Your task to perform on an android device: make emails show in primary in the gmail app Image 0: 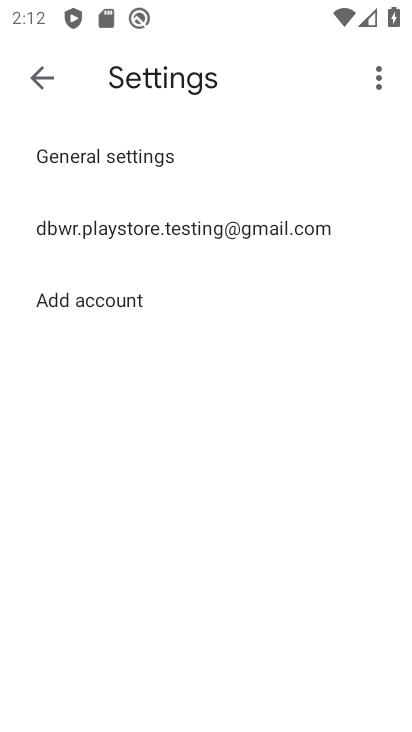
Step 0: click (274, 231)
Your task to perform on an android device: make emails show in primary in the gmail app Image 1: 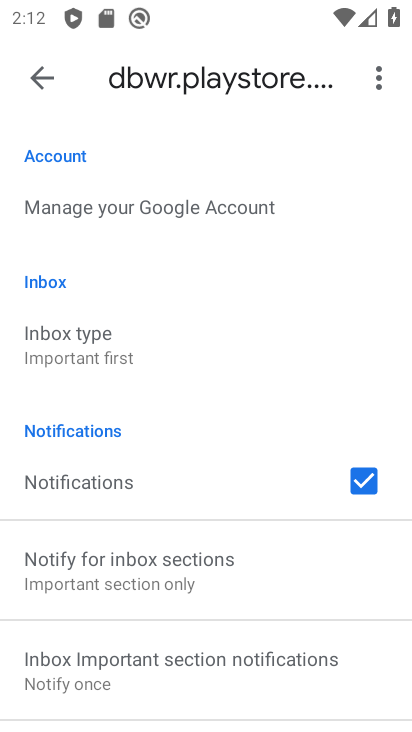
Step 1: click (76, 335)
Your task to perform on an android device: make emails show in primary in the gmail app Image 2: 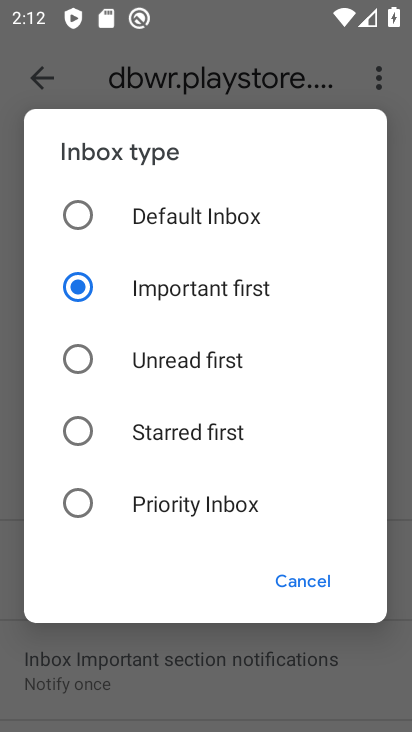
Step 2: click (88, 202)
Your task to perform on an android device: make emails show in primary in the gmail app Image 3: 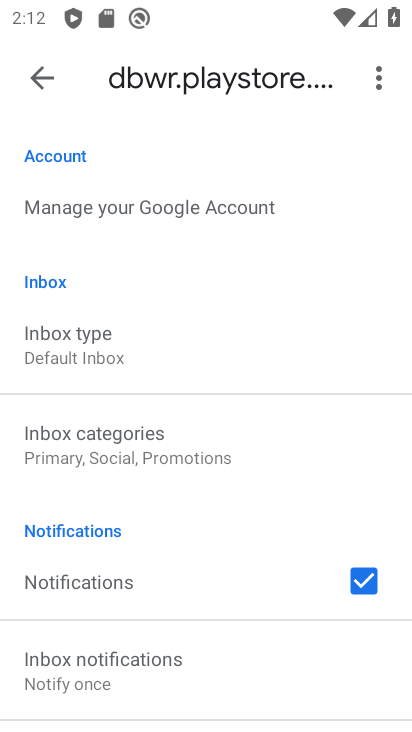
Step 3: click (159, 438)
Your task to perform on an android device: make emails show in primary in the gmail app Image 4: 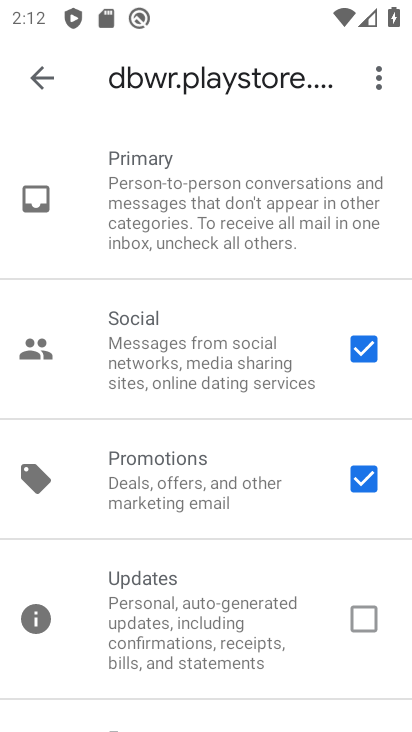
Step 4: click (359, 350)
Your task to perform on an android device: make emails show in primary in the gmail app Image 5: 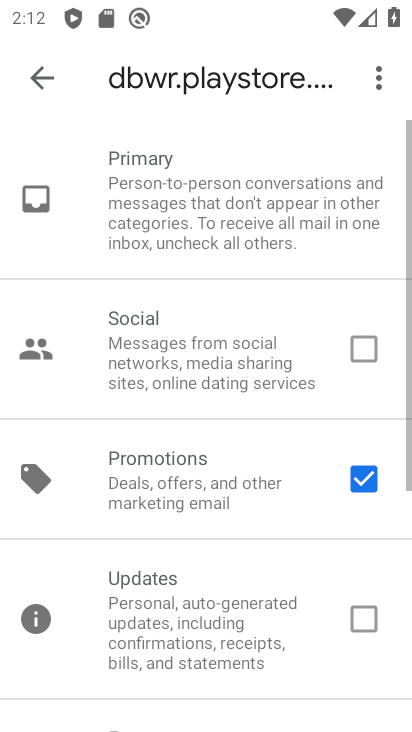
Step 5: click (367, 484)
Your task to perform on an android device: make emails show in primary in the gmail app Image 6: 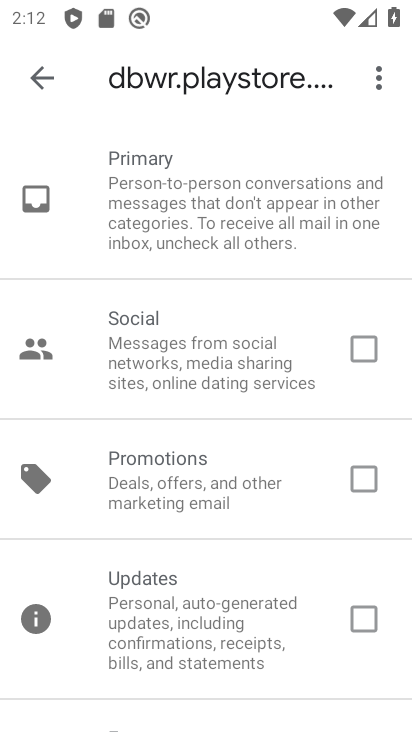
Step 6: task complete